Your task to perform on an android device: Go to settings Image 0: 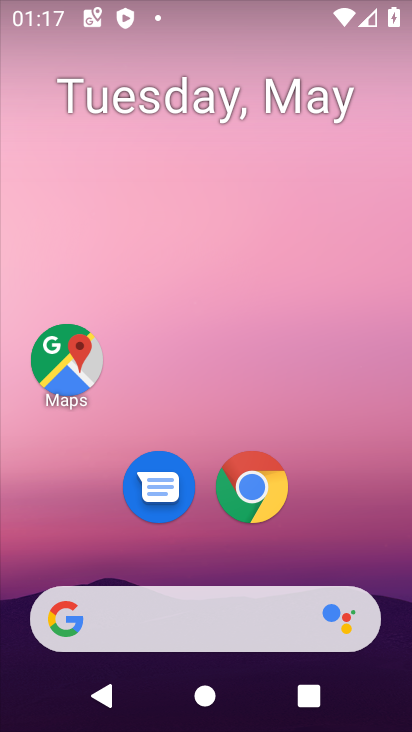
Step 0: drag from (225, 566) to (269, 182)
Your task to perform on an android device: Go to settings Image 1: 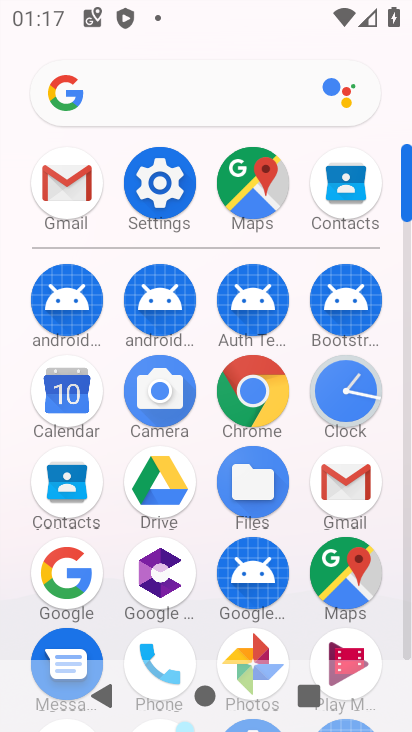
Step 1: click (166, 178)
Your task to perform on an android device: Go to settings Image 2: 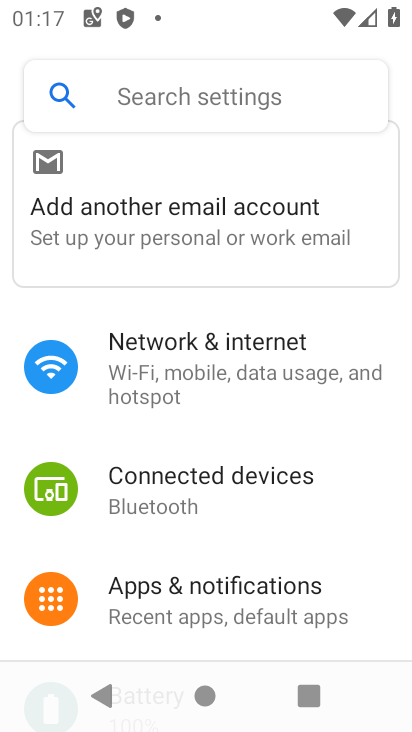
Step 2: task complete